Your task to perform on an android device: Go to Google Image 0: 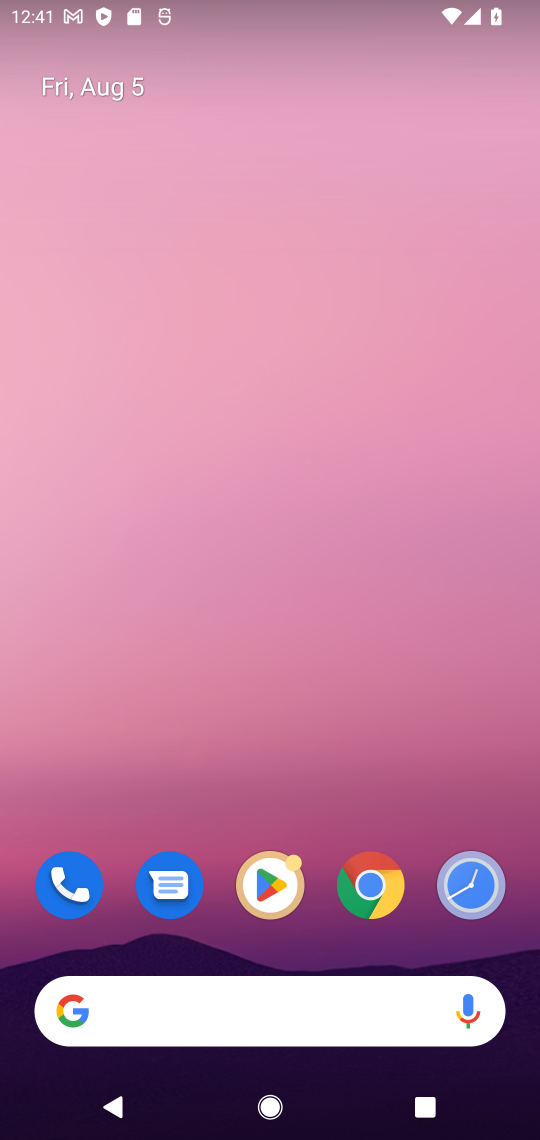
Step 0: click (228, 1022)
Your task to perform on an android device: Go to Google Image 1: 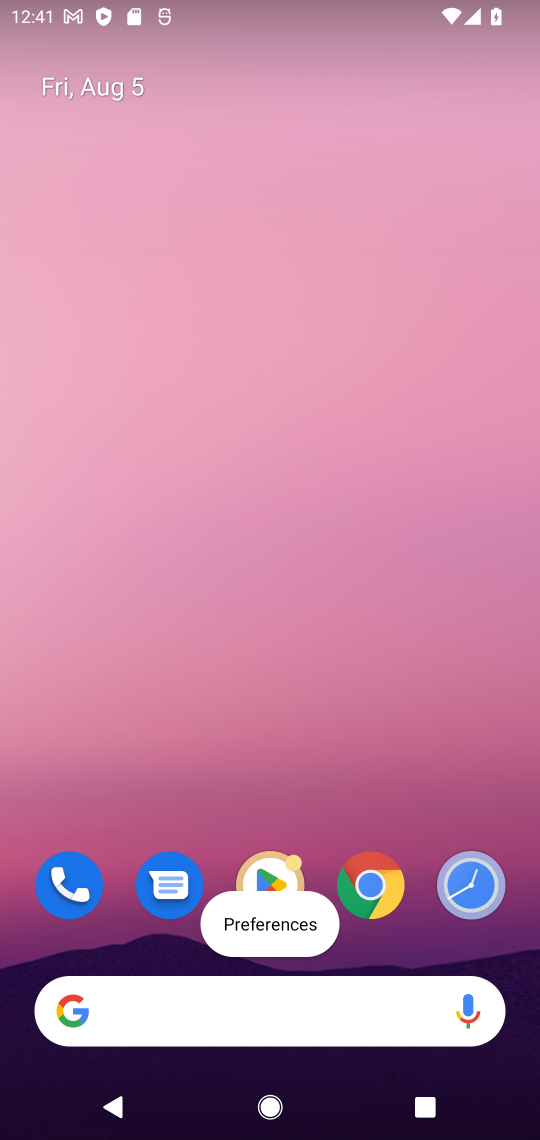
Step 1: click (228, 1022)
Your task to perform on an android device: Go to Google Image 2: 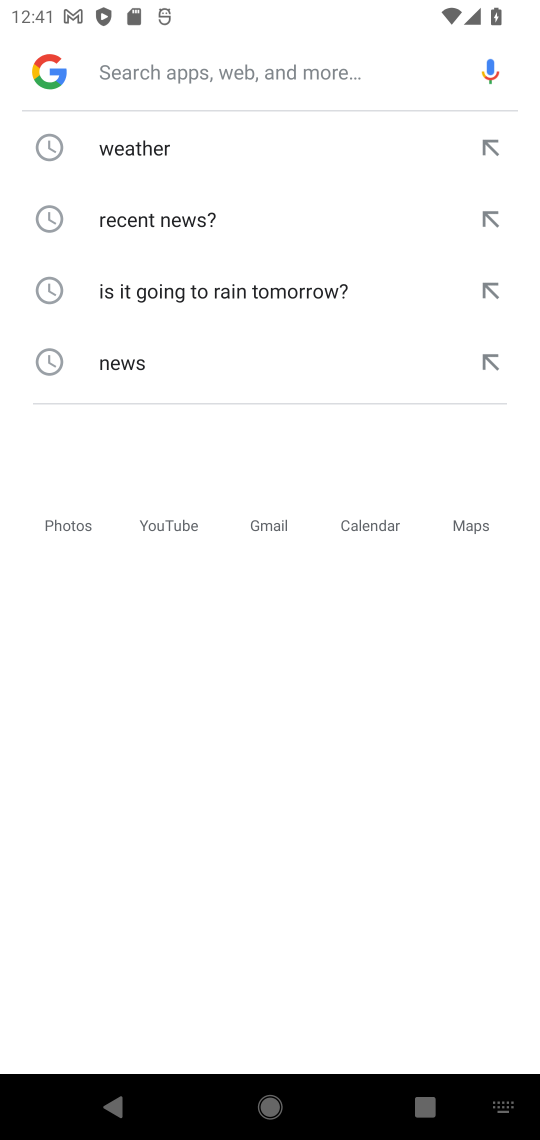
Step 2: task complete